Your task to perform on an android device: Go to eBay Image 0: 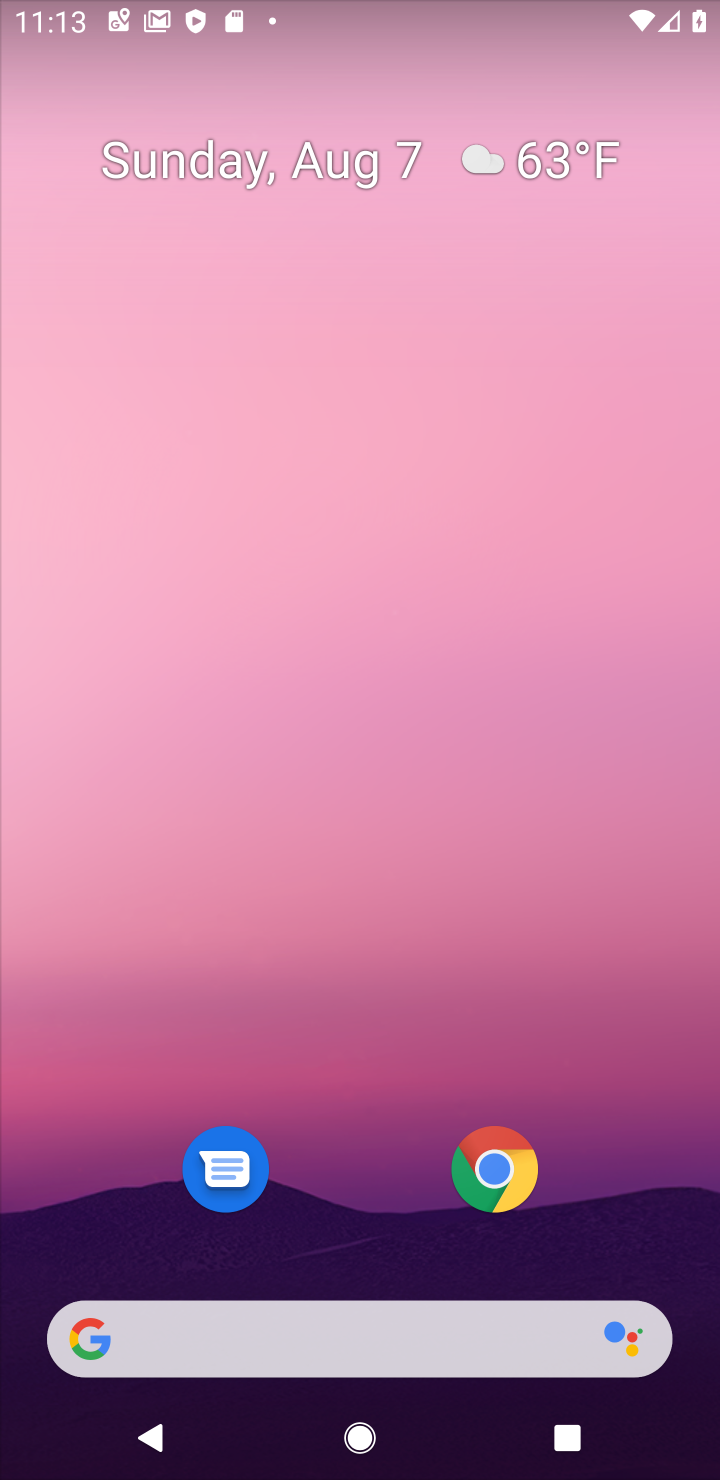
Step 0: drag from (380, 1288) to (282, 135)
Your task to perform on an android device: Go to eBay Image 1: 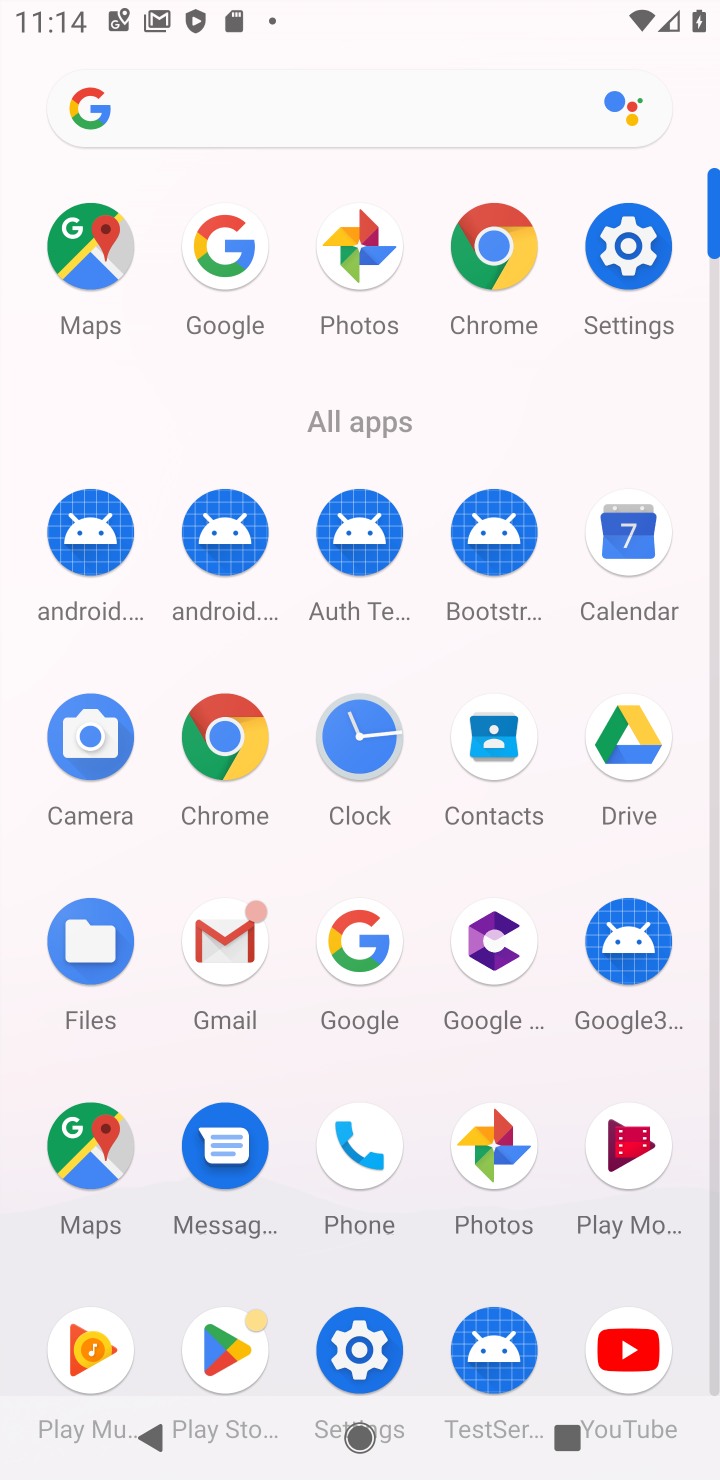
Step 1: click (487, 264)
Your task to perform on an android device: Go to eBay Image 2: 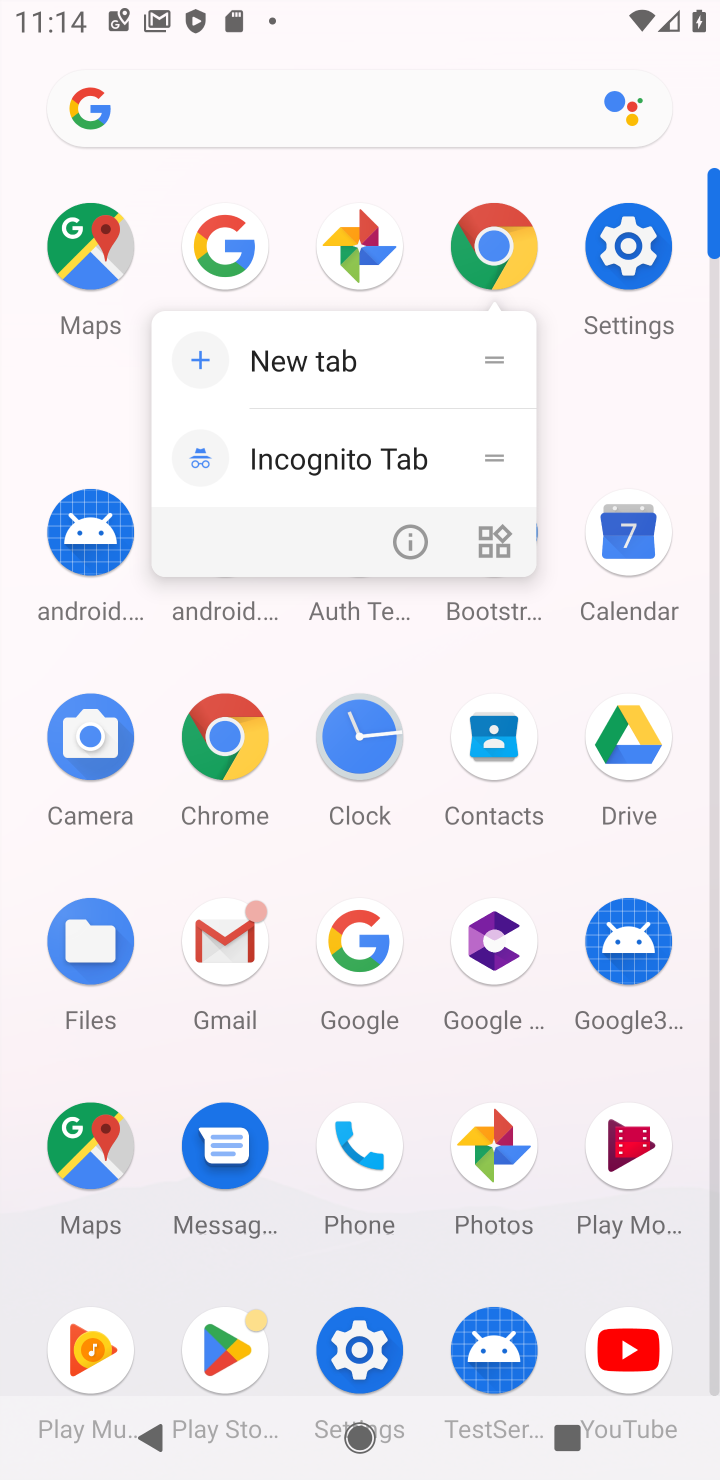
Step 2: click (498, 231)
Your task to perform on an android device: Go to eBay Image 3: 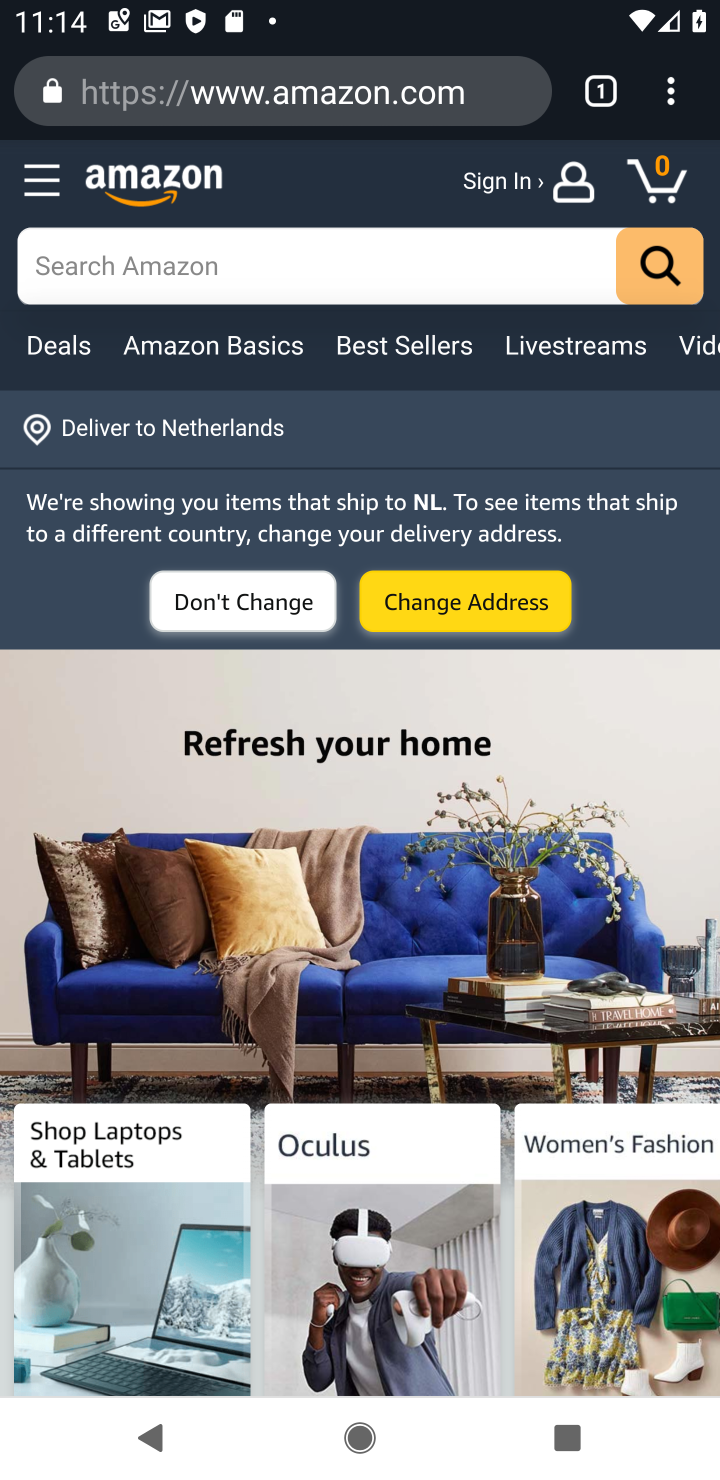
Step 3: click (605, 115)
Your task to perform on an android device: Go to eBay Image 4: 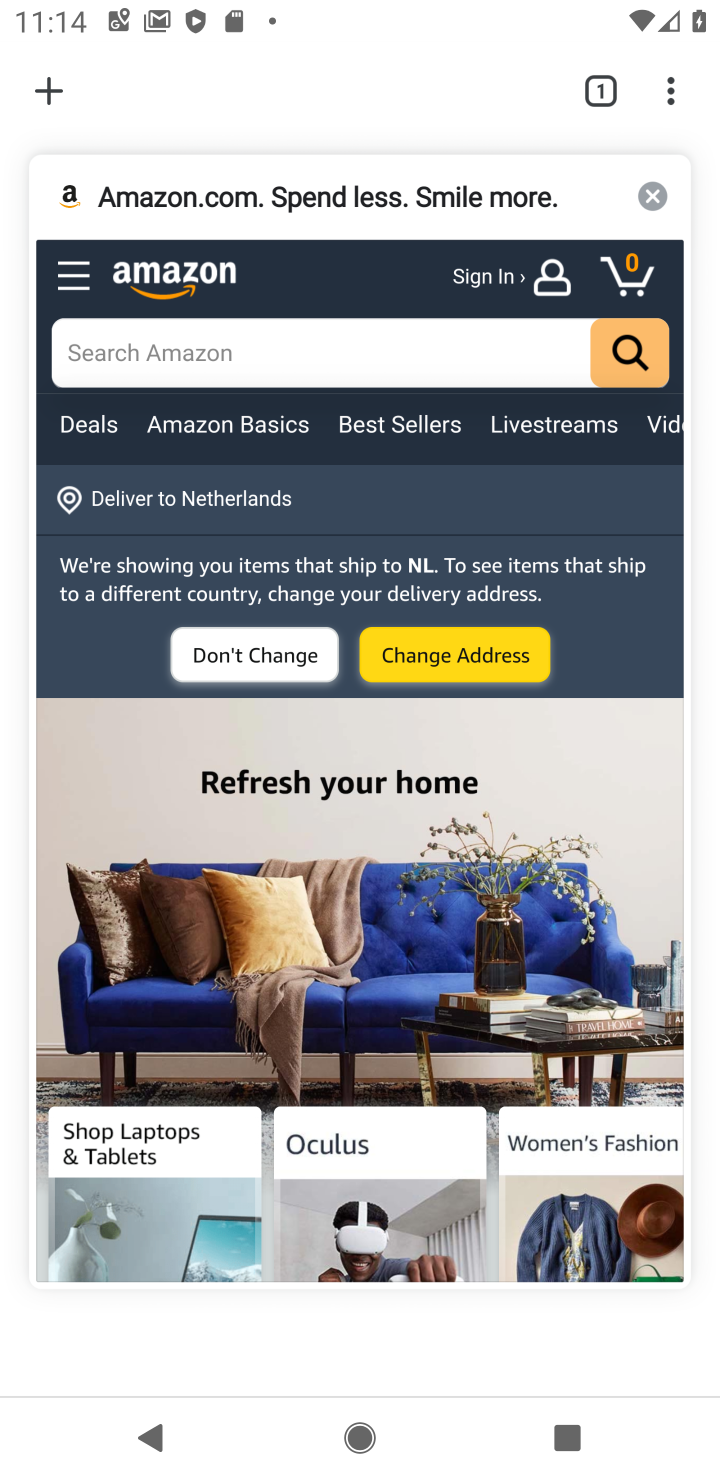
Step 4: click (36, 90)
Your task to perform on an android device: Go to eBay Image 5: 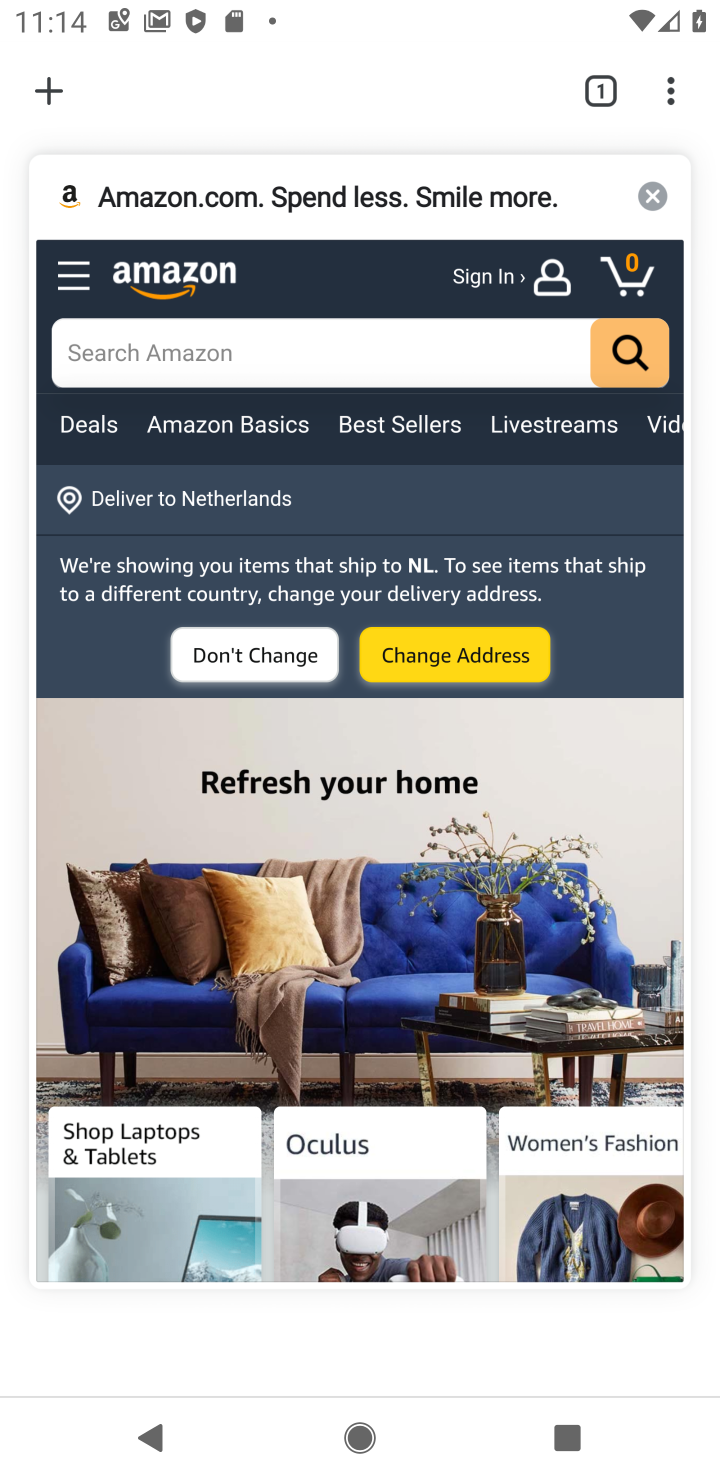
Step 5: click (59, 90)
Your task to perform on an android device: Go to eBay Image 6: 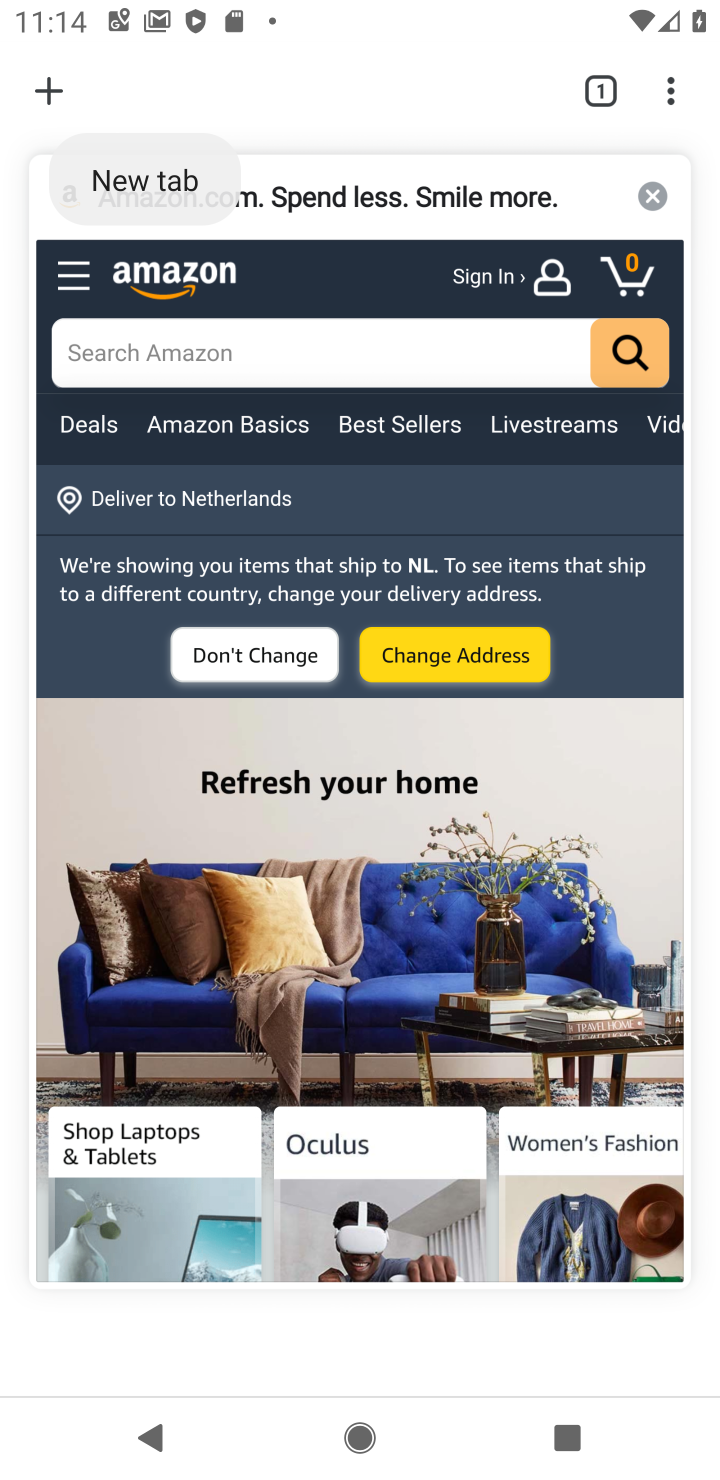
Step 6: click (55, 89)
Your task to perform on an android device: Go to eBay Image 7: 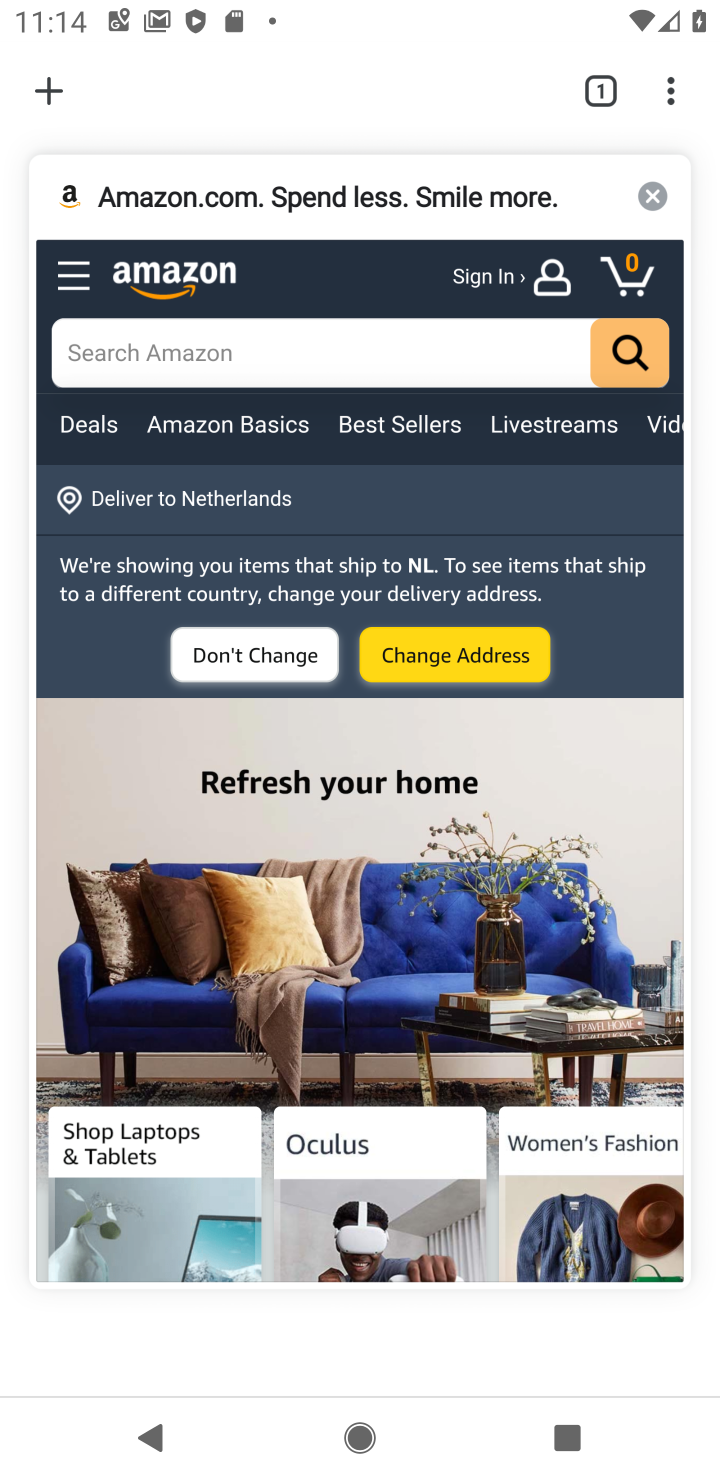
Step 7: click (54, 89)
Your task to perform on an android device: Go to eBay Image 8: 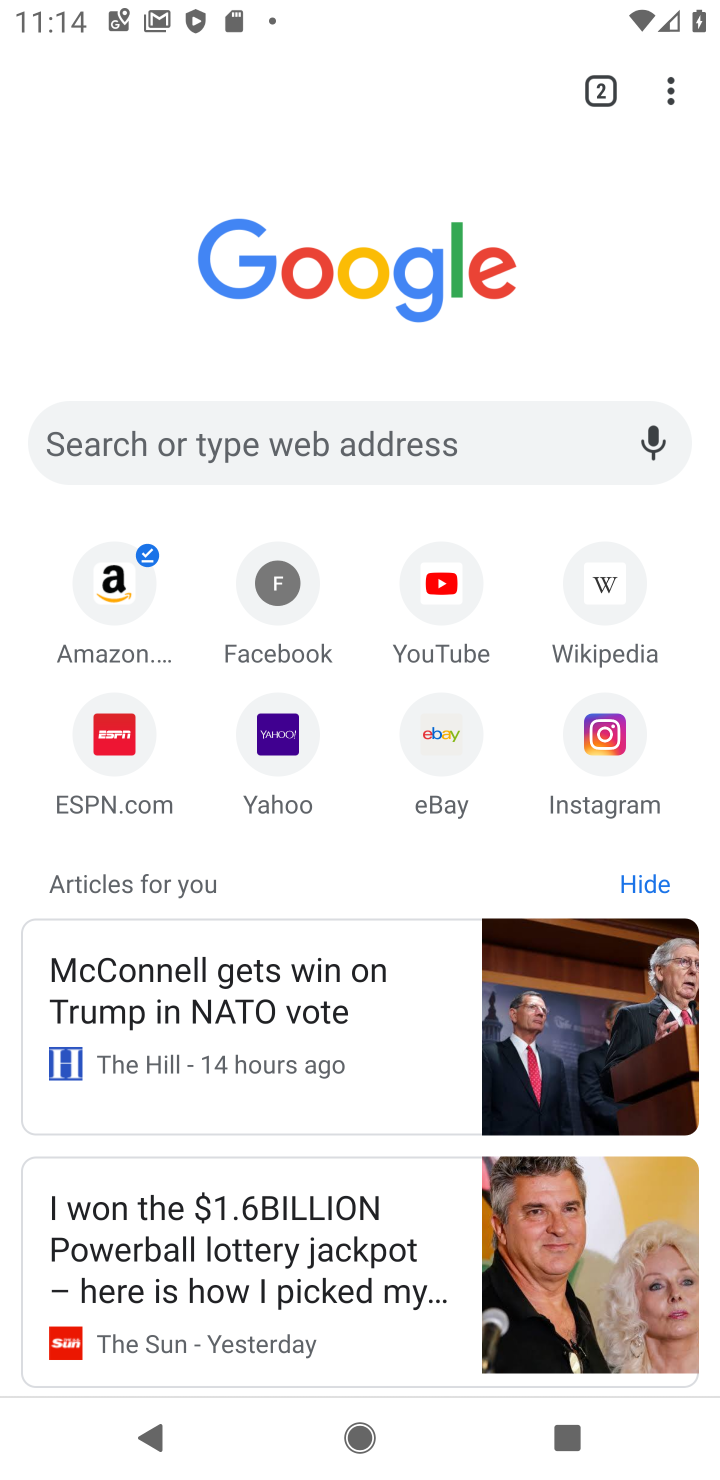
Step 8: click (426, 758)
Your task to perform on an android device: Go to eBay Image 9: 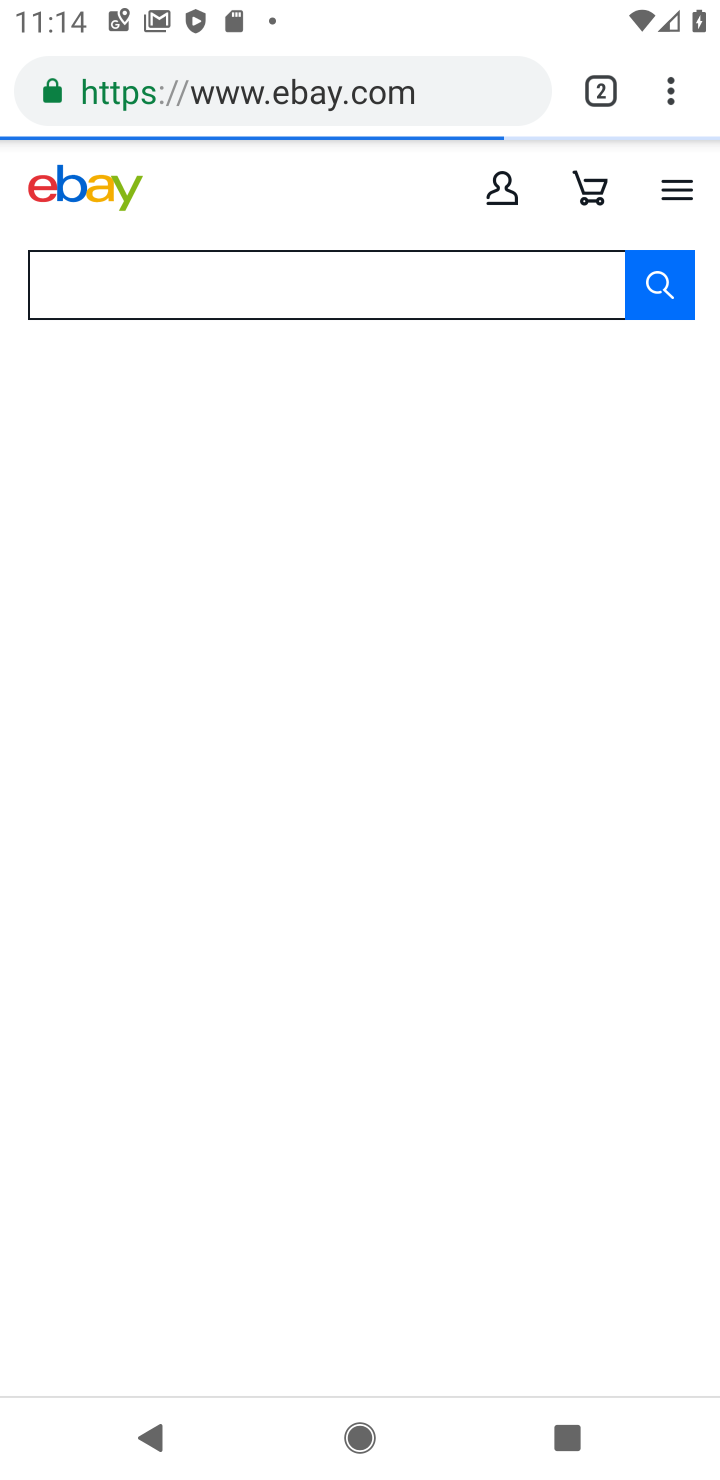
Step 9: task complete